Your task to perform on an android device: change the clock display to digital Image 0: 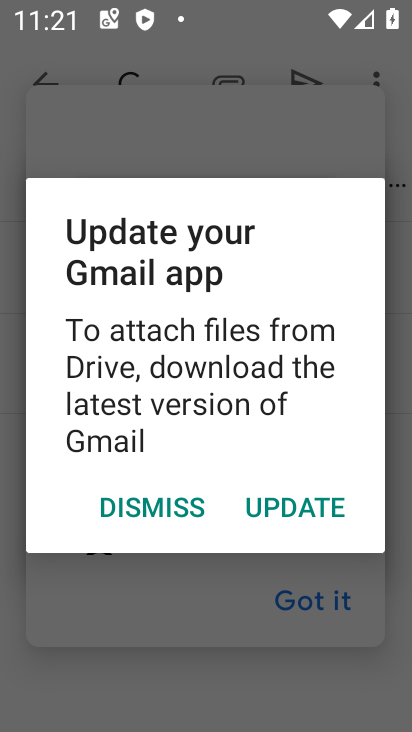
Step 0: press home button
Your task to perform on an android device: change the clock display to digital Image 1: 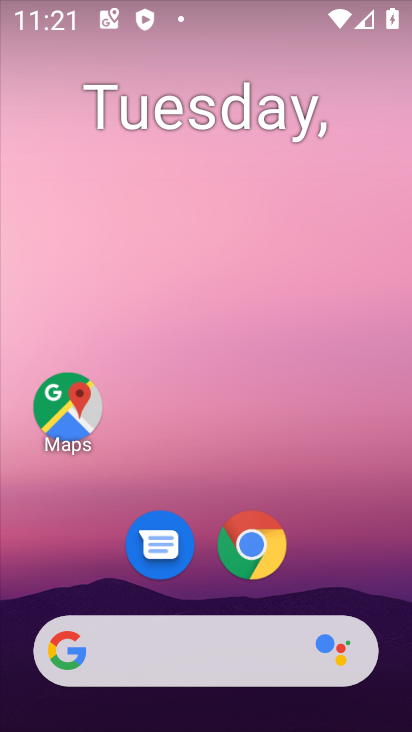
Step 1: drag from (344, 556) to (346, 75)
Your task to perform on an android device: change the clock display to digital Image 2: 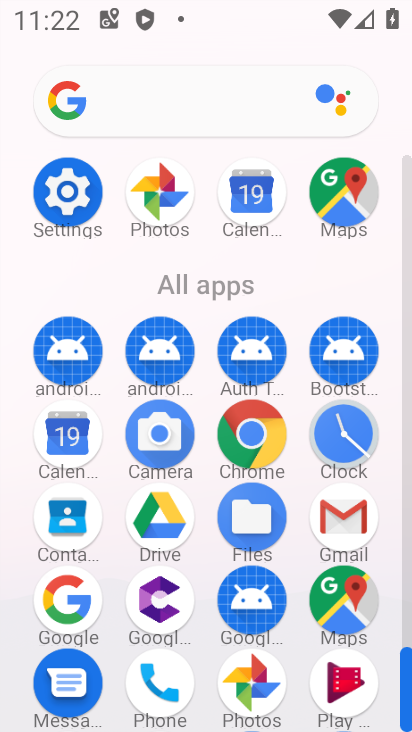
Step 2: click (331, 426)
Your task to perform on an android device: change the clock display to digital Image 3: 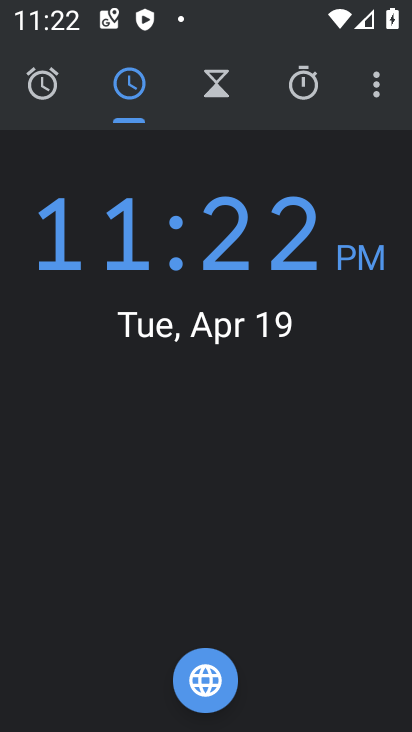
Step 3: click (378, 86)
Your task to perform on an android device: change the clock display to digital Image 4: 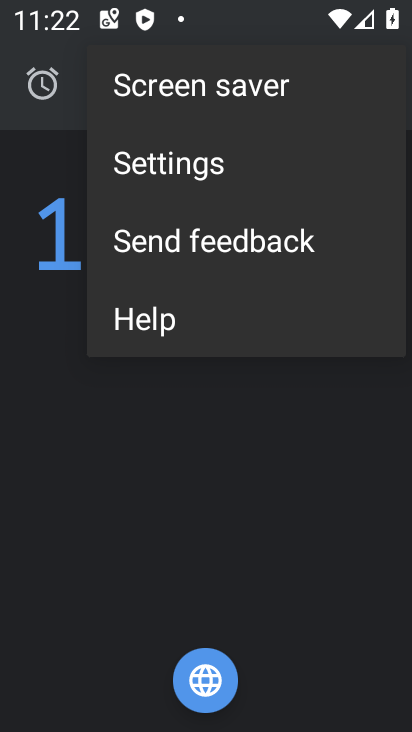
Step 4: click (298, 164)
Your task to perform on an android device: change the clock display to digital Image 5: 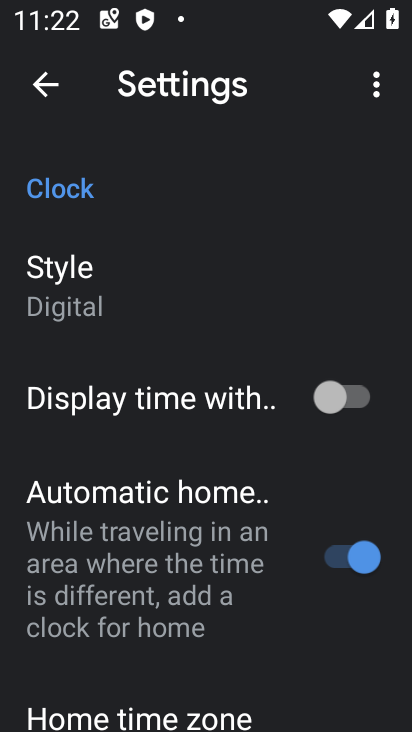
Step 5: click (181, 285)
Your task to perform on an android device: change the clock display to digital Image 6: 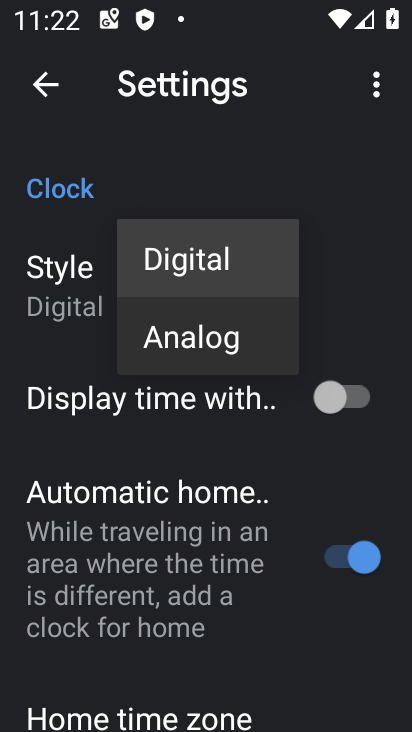
Step 6: click (182, 264)
Your task to perform on an android device: change the clock display to digital Image 7: 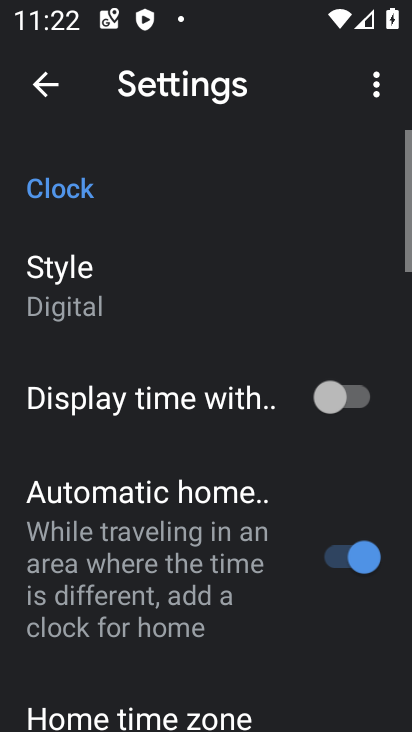
Step 7: click (55, 85)
Your task to perform on an android device: change the clock display to digital Image 8: 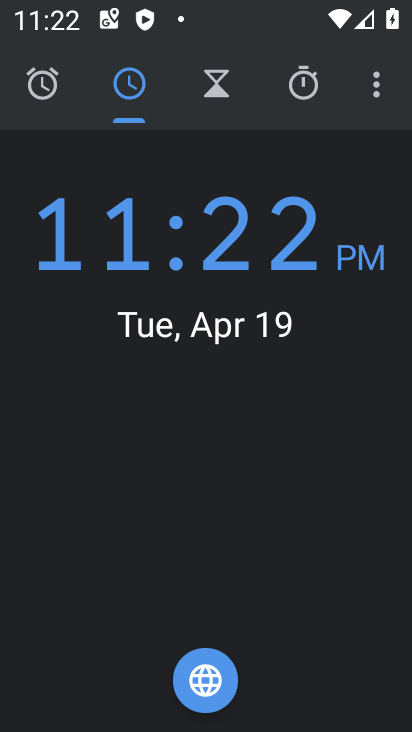
Step 8: task complete